Your task to perform on an android device: toggle improve location accuracy Image 0: 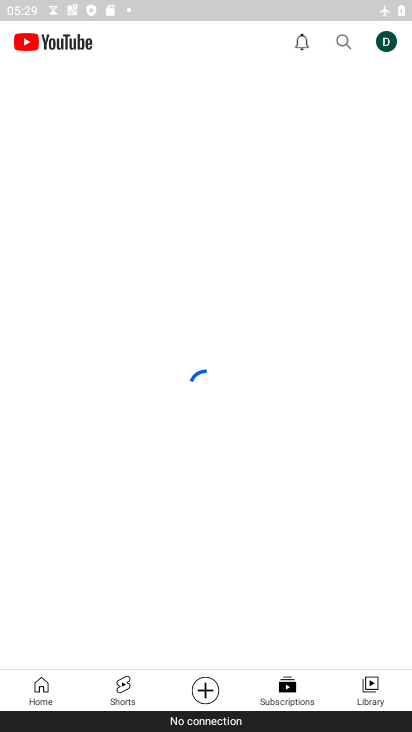
Step 0: press home button
Your task to perform on an android device: toggle improve location accuracy Image 1: 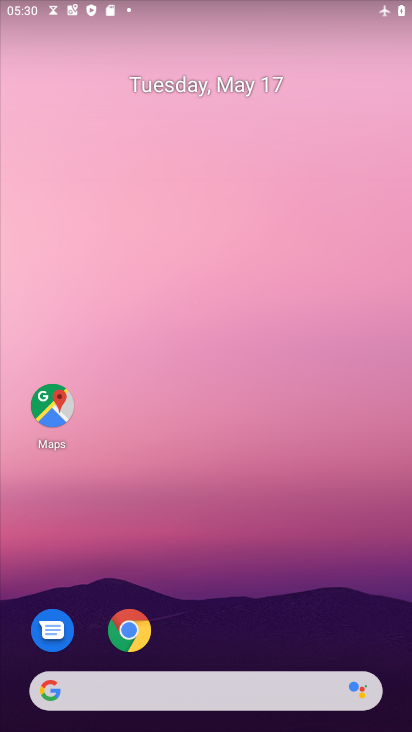
Step 1: drag from (244, 614) to (171, 47)
Your task to perform on an android device: toggle improve location accuracy Image 2: 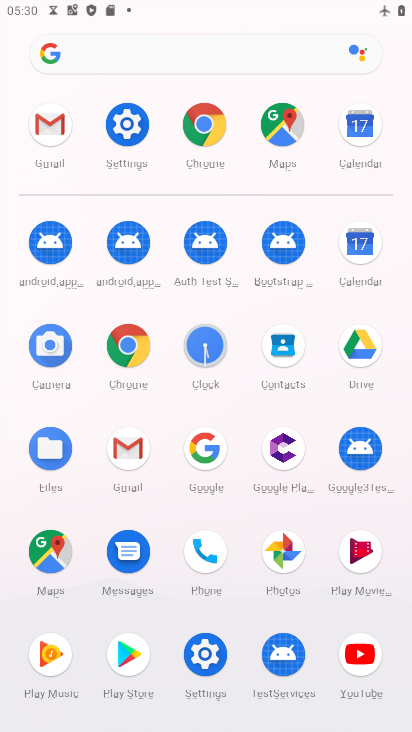
Step 2: click (206, 644)
Your task to perform on an android device: toggle improve location accuracy Image 3: 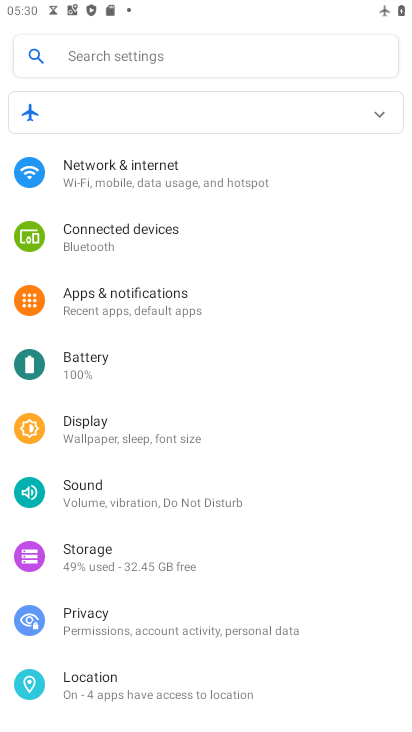
Step 3: click (112, 673)
Your task to perform on an android device: toggle improve location accuracy Image 4: 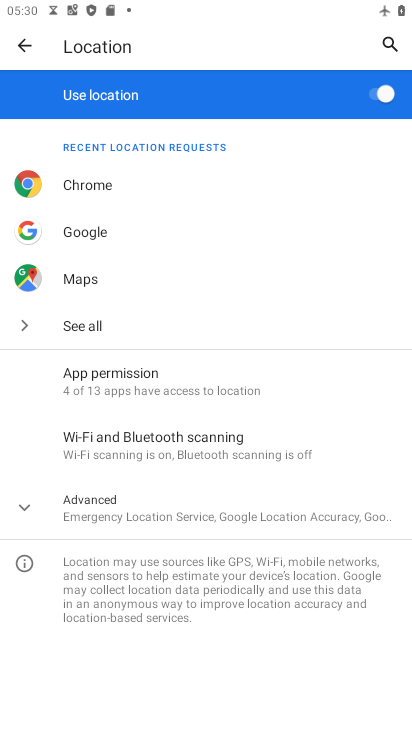
Step 4: click (117, 491)
Your task to perform on an android device: toggle improve location accuracy Image 5: 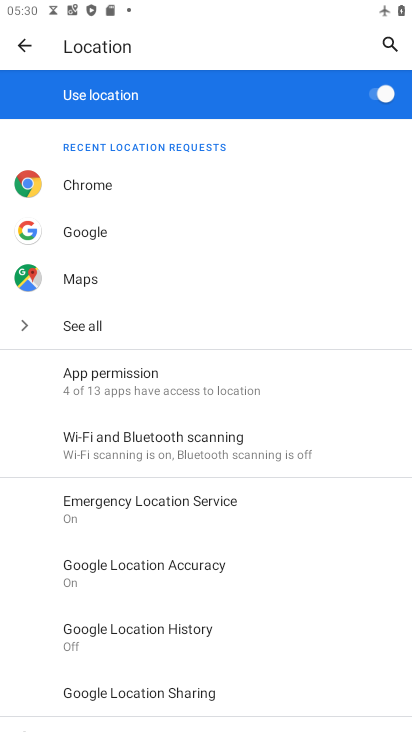
Step 5: click (163, 568)
Your task to perform on an android device: toggle improve location accuracy Image 6: 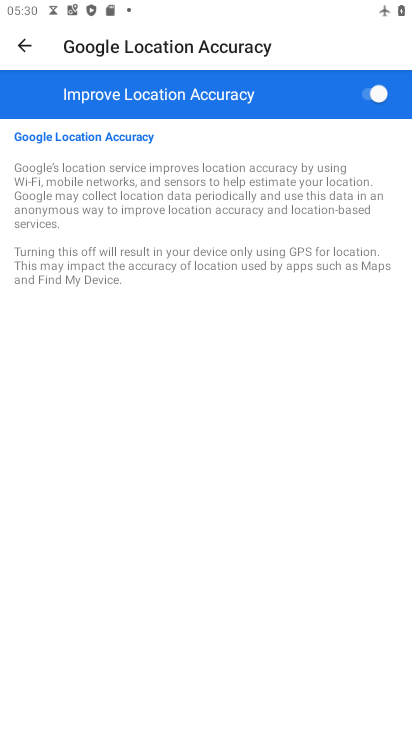
Step 6: click (363, 101)
Your task to perform on an android device: toggle improve location accuracy Image 7: 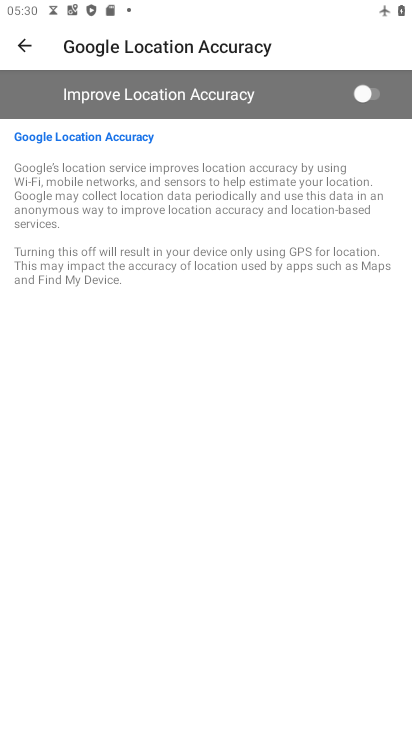
Step 7: task complete